Your task to perform on an android device: Open Google Chrome Image 0: 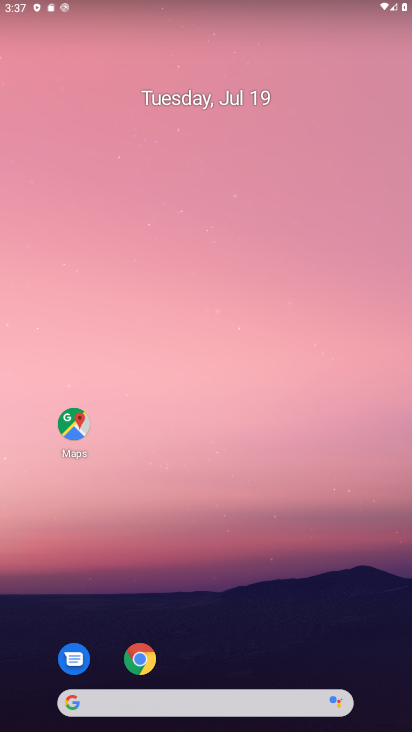
Step 0: press back button
Your task to perform on an android device: Open Google Chrome Image 1: 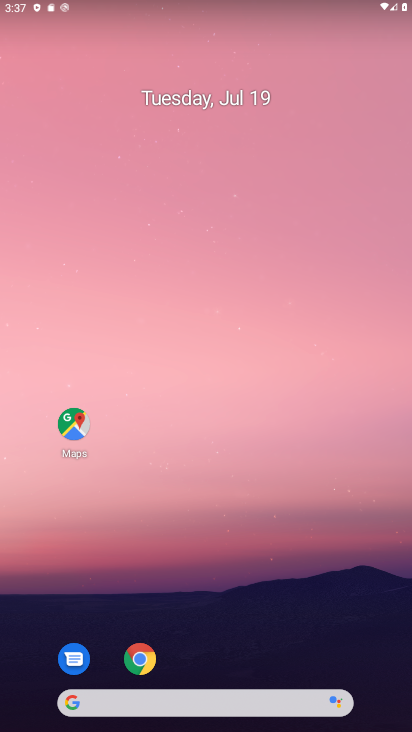
Step 1: click (186, 127)
Your task to perform on an android device: Open Google Chrome Image 2: 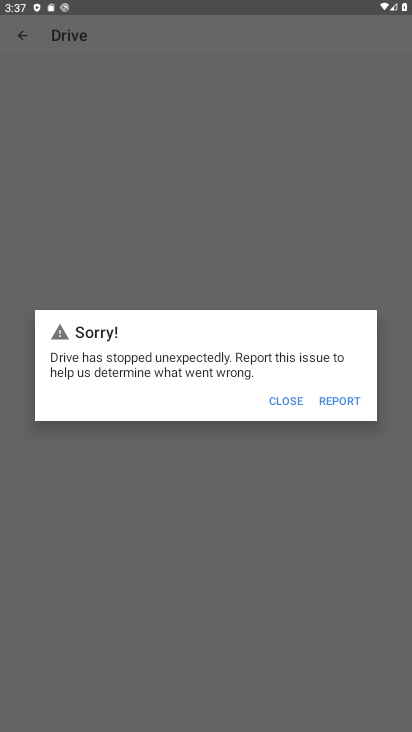
Step 2: drag from (203, 601) to (105, 172)
Your task to perform on an android device: Open Google Chrome Image 3: 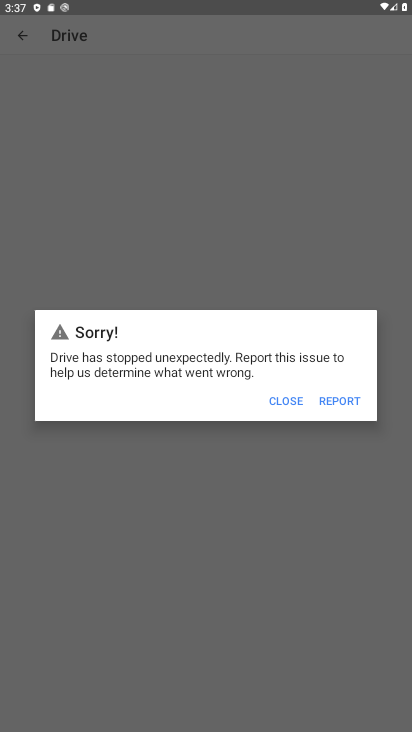
Step 3: drag from (202, 430) to (205, 208)
Your task to perform on an android device: Open Google Chrome Image 4: 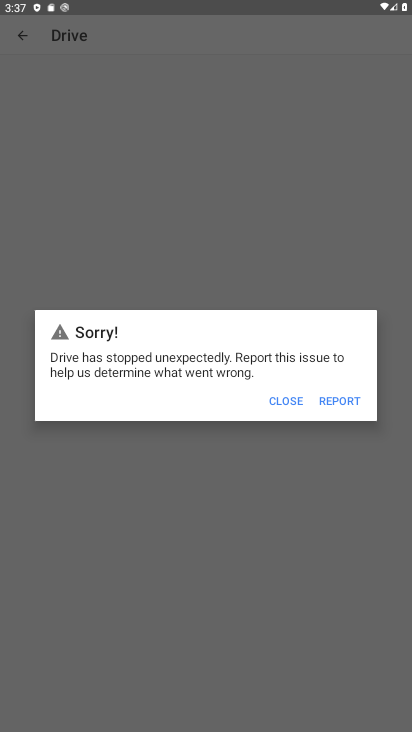
Step 4: click (298, 398)
Your task to perform on an android device: Open Google Chrome Image 5: 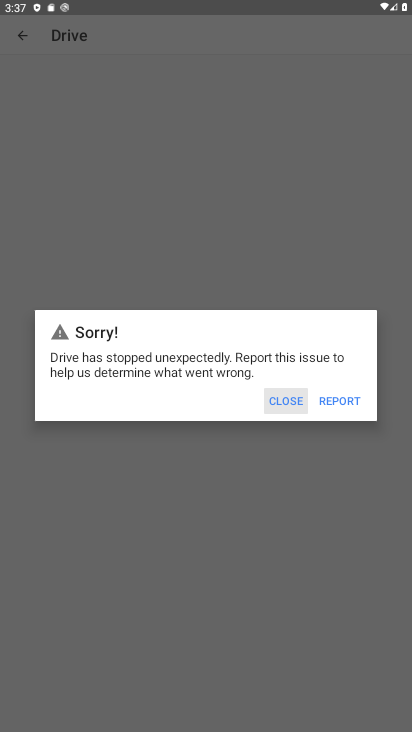
Step 5: click (294, 397)
Your task to perform on an android device: Open Google Chrome Image 6: 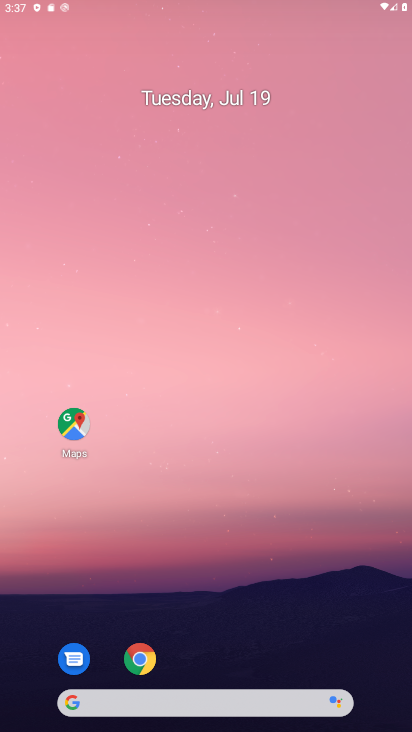
Step 6: click (294, 397)
Your task to perform on an android device: Open Google Chrome Image 7: 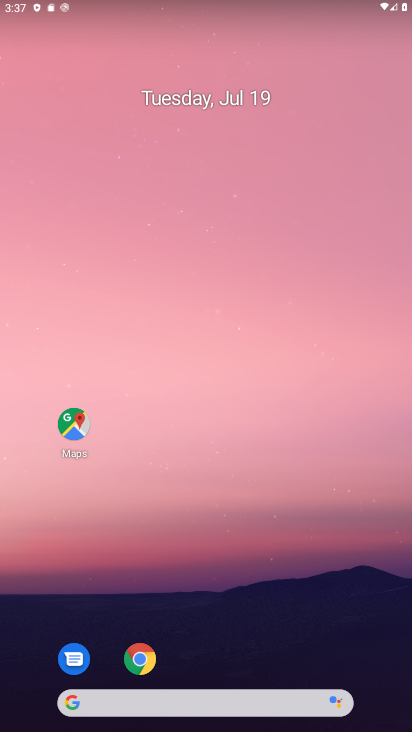
Step 7: drag from (205, 327) to (180, 134)
Your task to perform on an android device: Open Google Chrome Image 8: 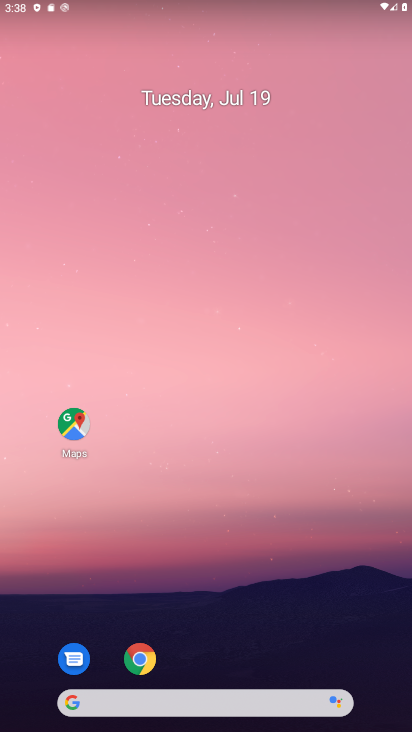
Step 8: drag from (186, 559) to (137, 152)
Your task to perform on an android device: Open Google Chrome Image 9: 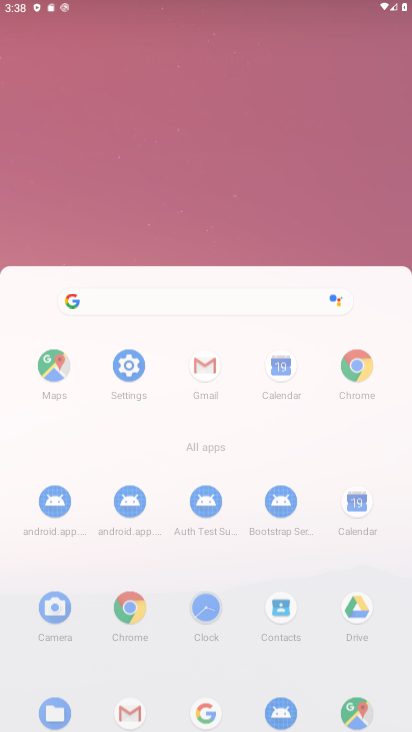
Step 9: drag from (214, 495) to (214, 271)
Your task to perform on an android device: Open Google Chrome Image 10: 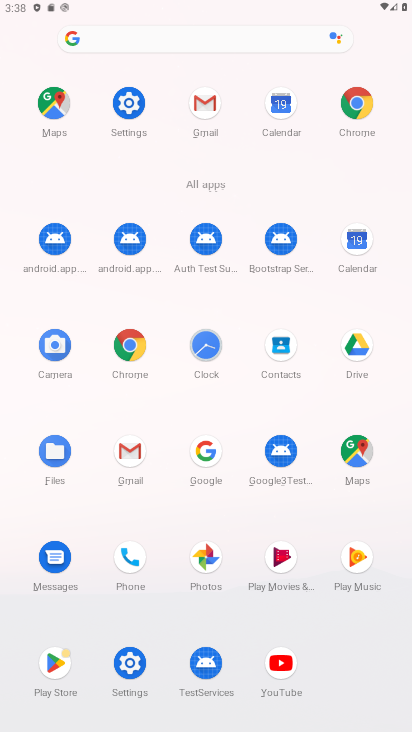
Step 10: click (357, 99)
Your task to perform on an android device: Open Google Chrome Image 11: 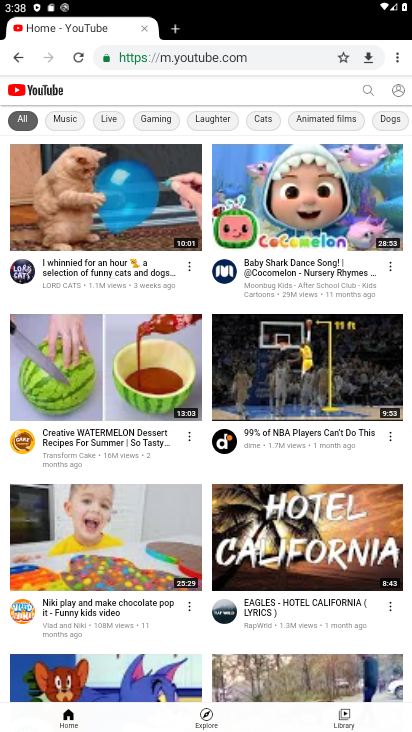
Step 11: drag from (398, 56) to (288, 52)
Your task to perform on an android device: Open Google Chrome Image 12: 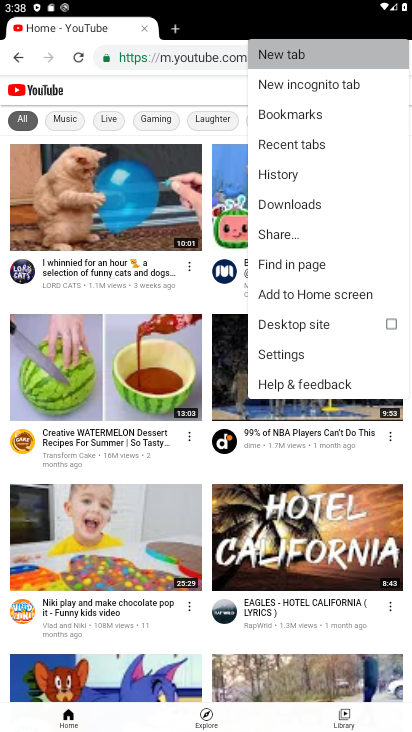
Step 12: click (288, 52)
Your task to perform on an android device: Open Google Chrome Image 13: 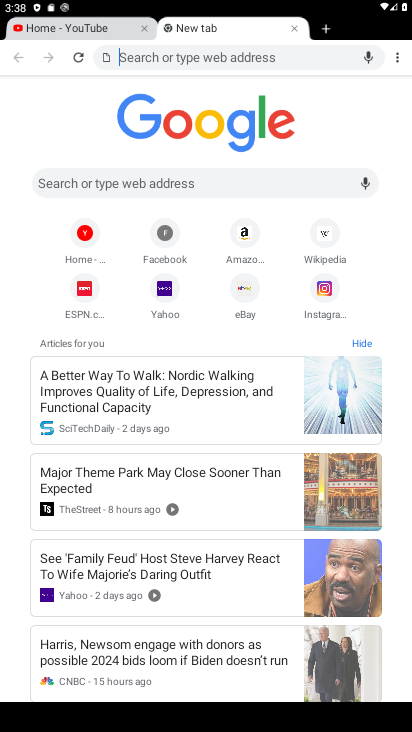
Step 13: task complete